Your task to perform on an android device: turn on airplane mode Image 0: 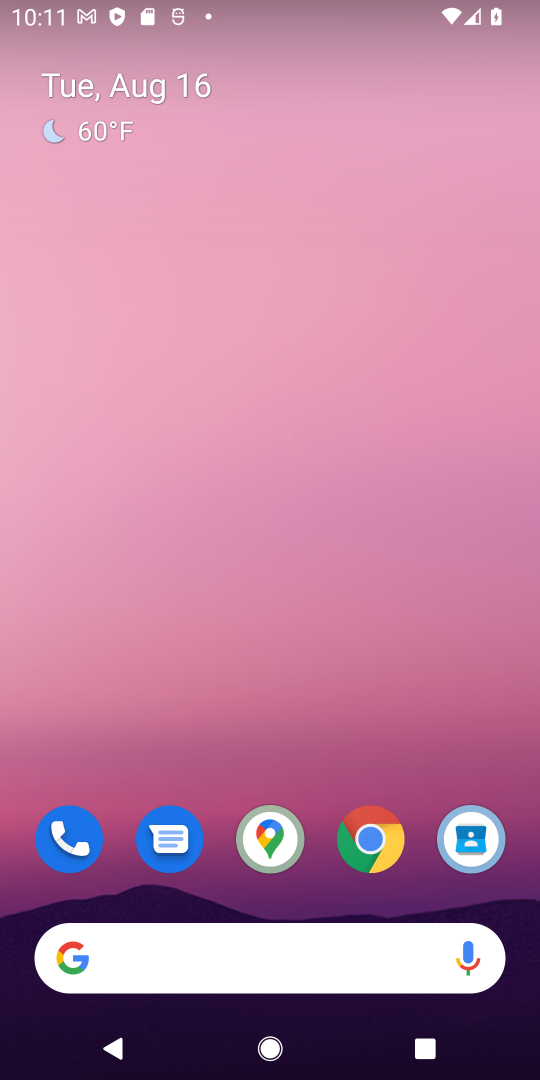
Step 0: drag from (205, 818) to (205, 6)
Your task to perform on an android device: turn on airplane mode Image 1: 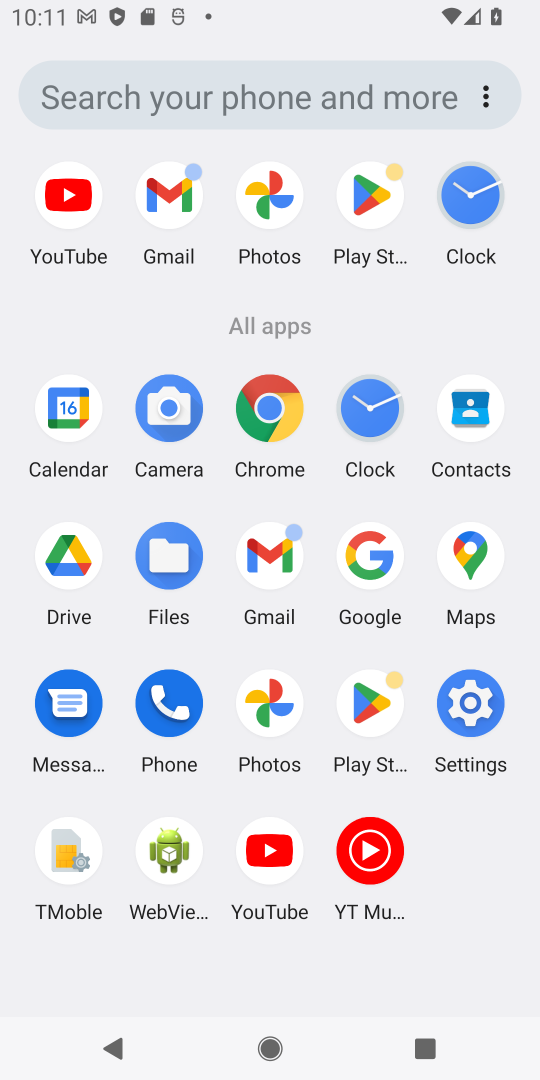
Step 1: click (480, 734)
Your task to perform on an android device: turn on airplane mode Image 2: 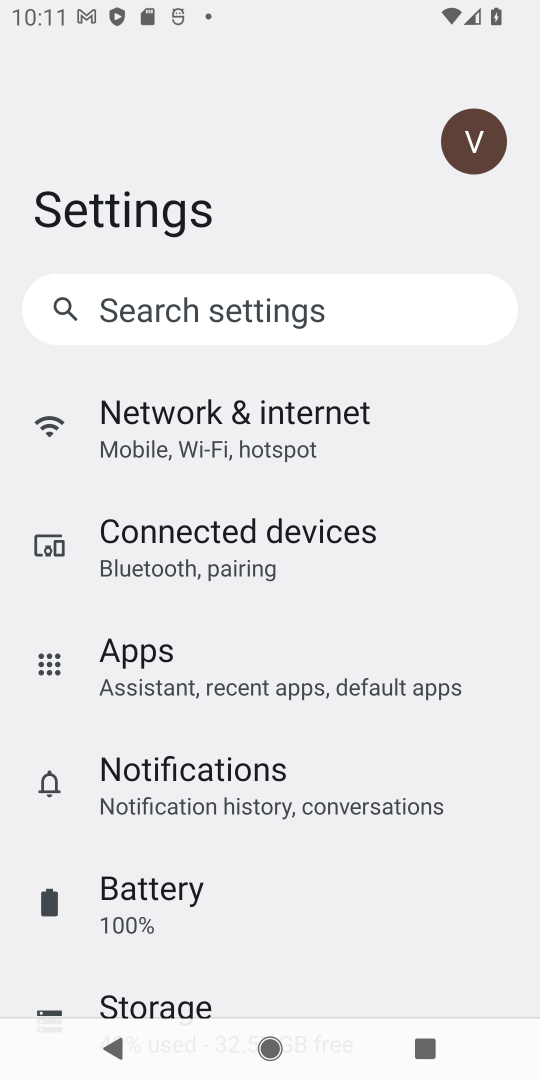
Step 2: click (275, 446)
Your task to perform on an android device: turn on airplane mode Image 3: 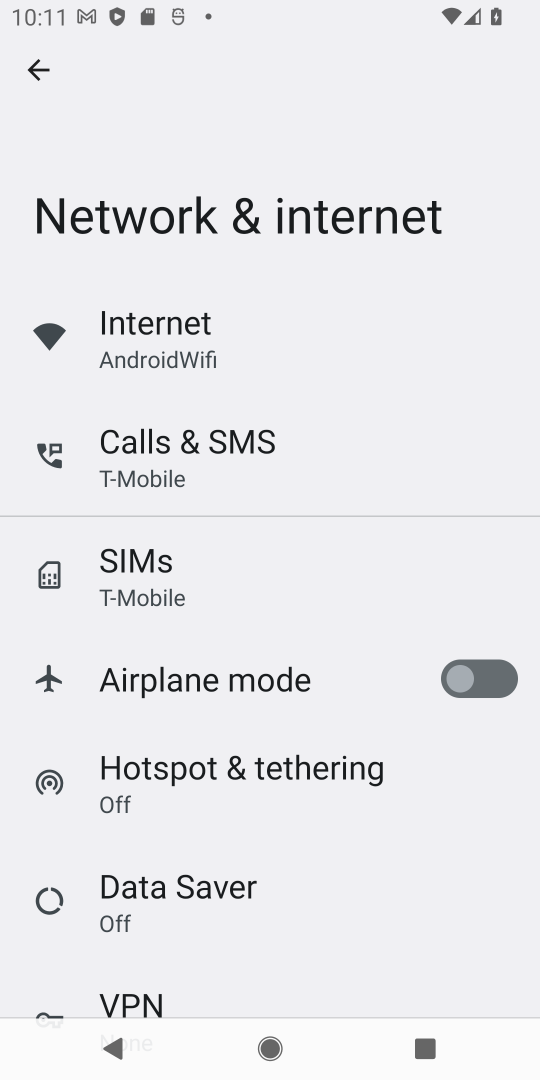
Step 3: click (503, 669)
Your task to perform on an android device: turn on airplane mode Image 4: 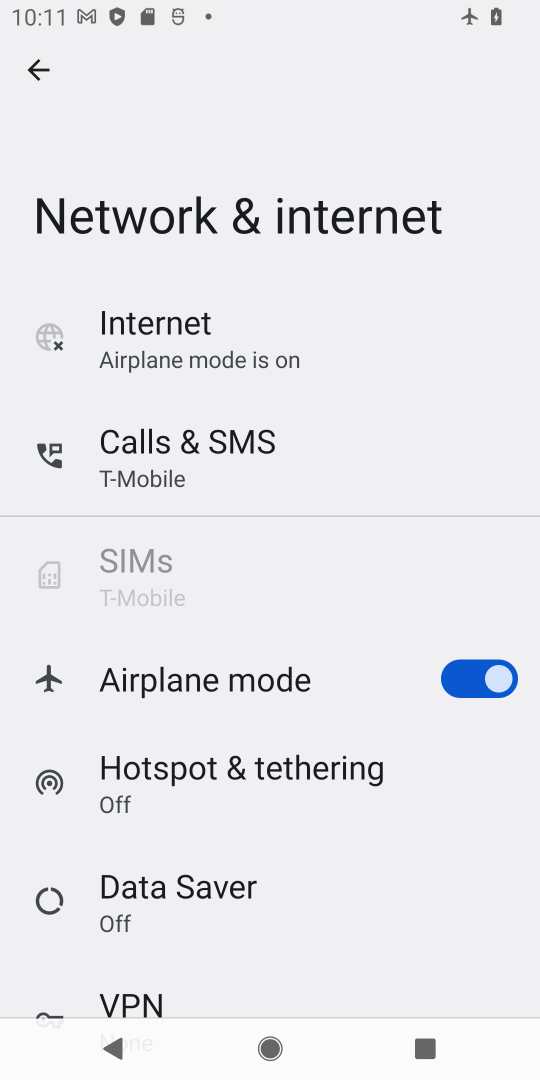
Step 4: task complete